Your task to perform on an android device: open a new tab in the chrome app Image 0: 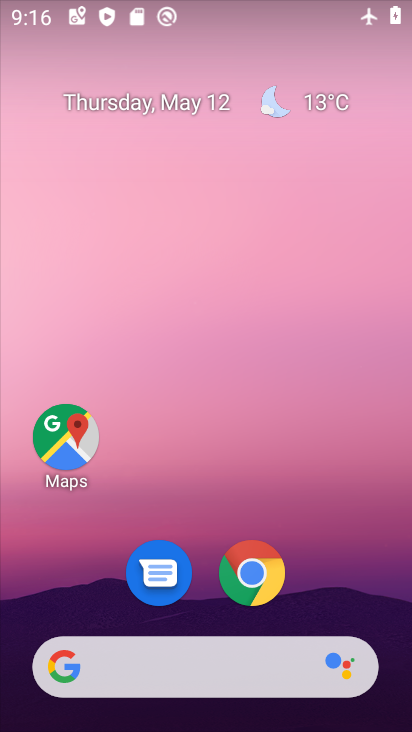
Step 0: click (257, 576)
Your task to perform on an android device: open a new tab in the chrome app Image 1: 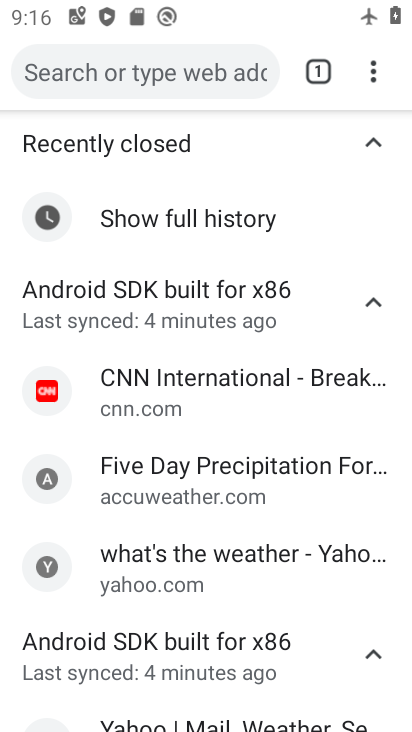
Step 1: click (371, 69)
Your task to perform on an android device: open a new tab in the chrome app Image 2: 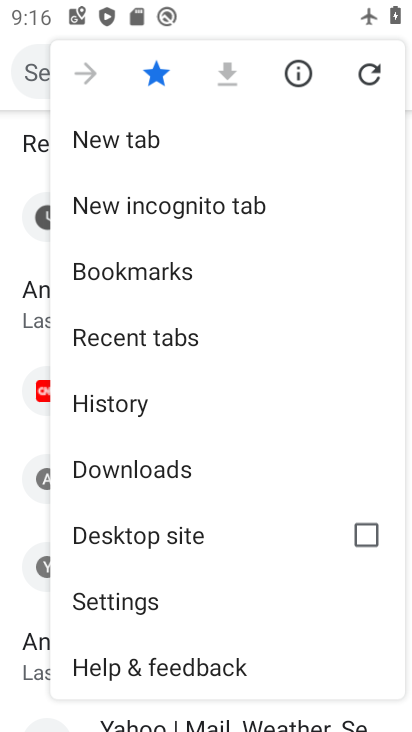
Step 2: click (119, 138)
Your task to perform on an android device: open a new tab in the chrome app Image 3: 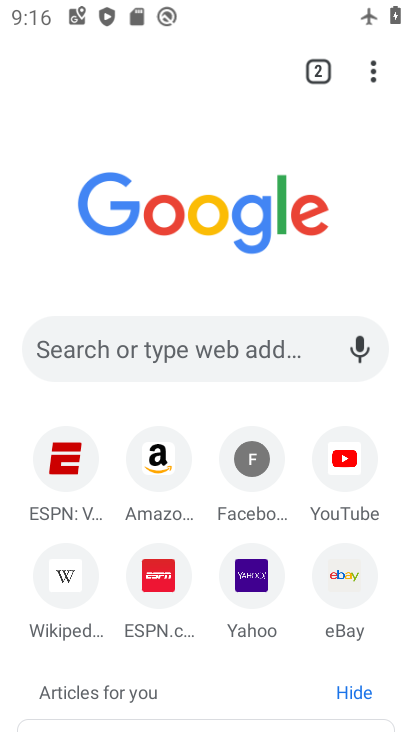
Step 3: task complete